Your task to perform on an android device: change your default location settings in chrome Image 0: 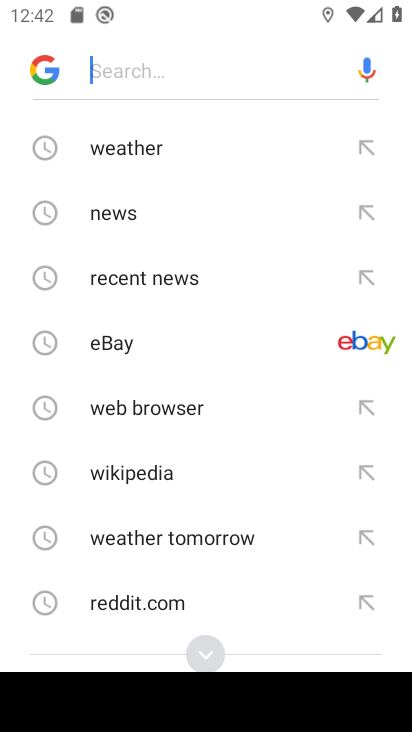
Step 0: press home button
Your task to perform on an android device: change your default location settings in chrome Image 1: 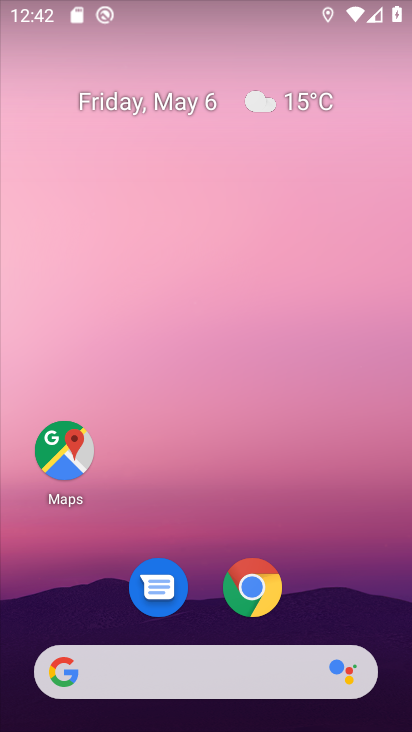
Step 1: drag from (324, 581) to (229, 70)
Your task to perform on an android device: change your default location settings in chrome Image 2: 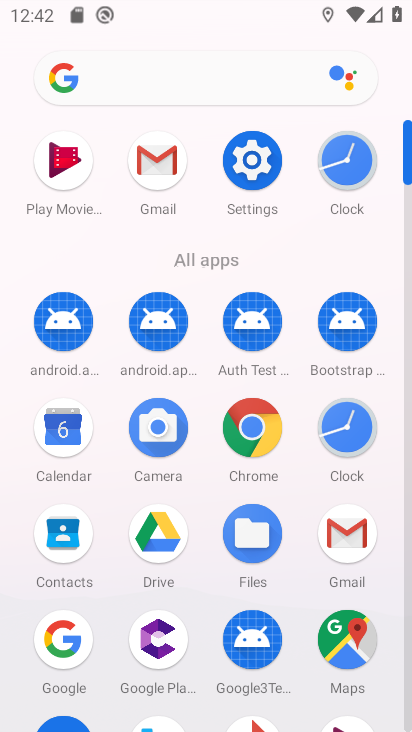
Step 2: click (255, 413)
Your task to perform on an android device: change your default location settings in chrome Image 3: 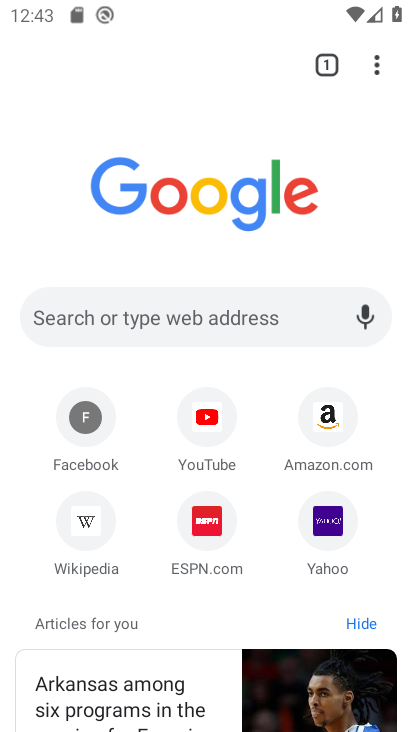
Step 3: click (368, 63)
Your task to perform on an android device: change your default location settings in chrome Image 4: 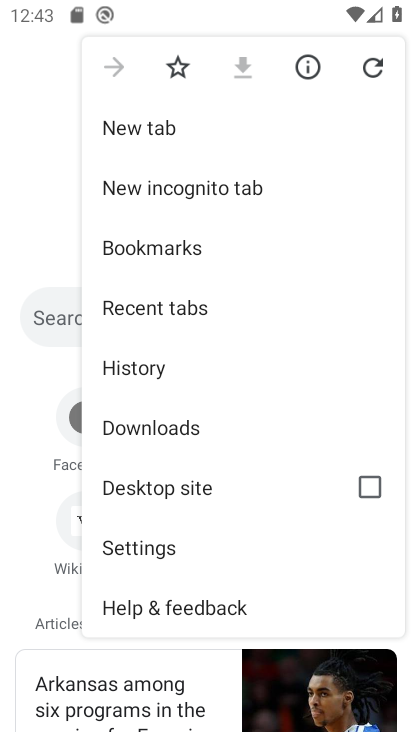
Step 4: click (165, 544)
Your task to perform on an android device: change your default location settings in chrome Image 5: 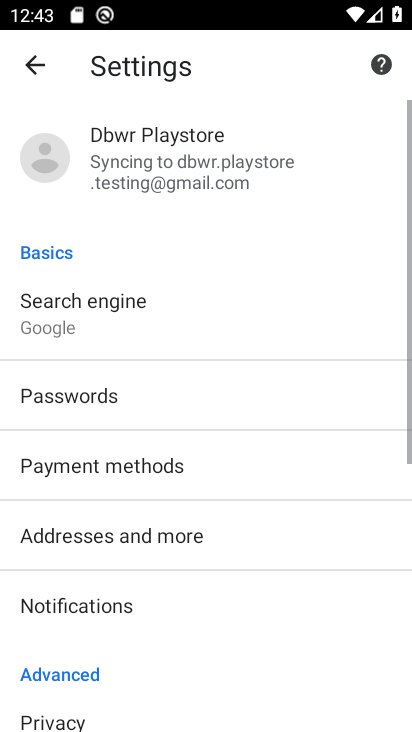
Step 5: drag from (233, 588) to (240, 89)
Your task to perform on an android device: change your default location settings in chrome Image 6: 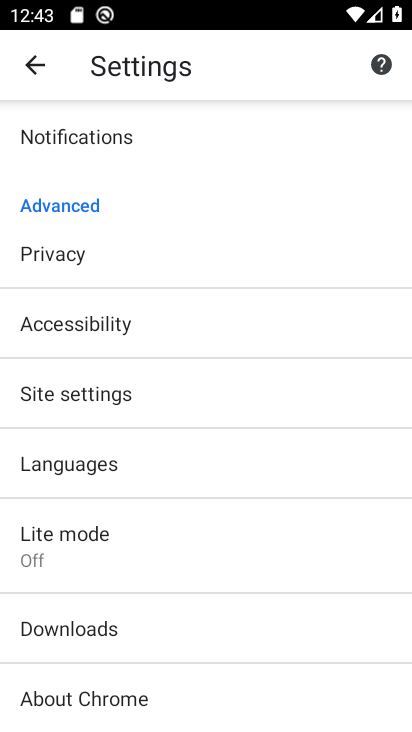
Step 6: click (111, 398)
Your task to perform on an android device: change your default location settings in chrome Image 7: 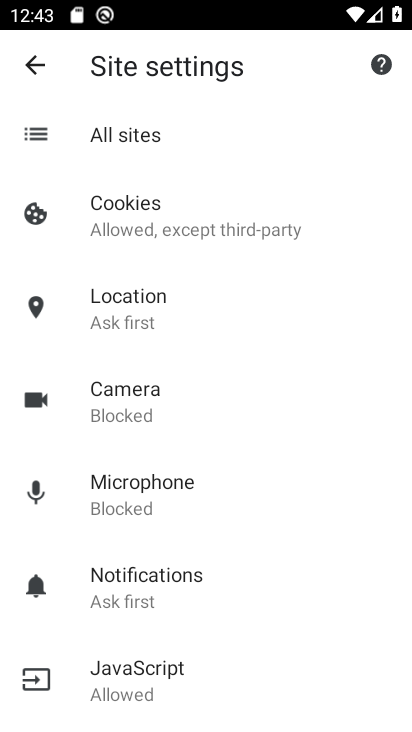
Step 7: click (159, 312)
Your task to perform on an android device: change your default location settings in chrome Image 8: 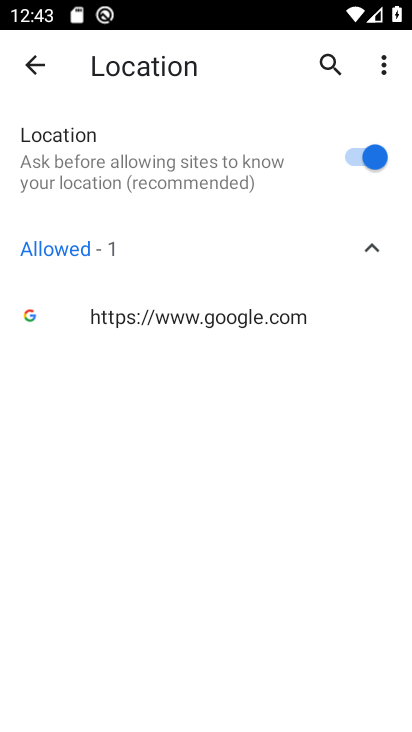
Step 8: click (354, 153)
Your task to perform on an android device: change your default location settings in chrome Image 9: 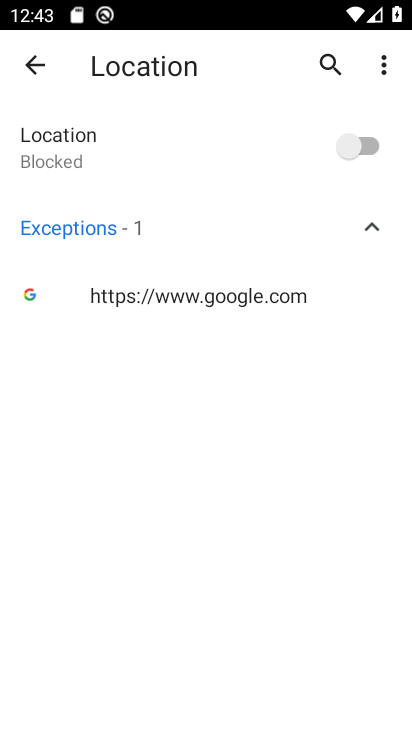
Step 9: task complete